Your task to perform on an android device: open wifi settings Image 0: 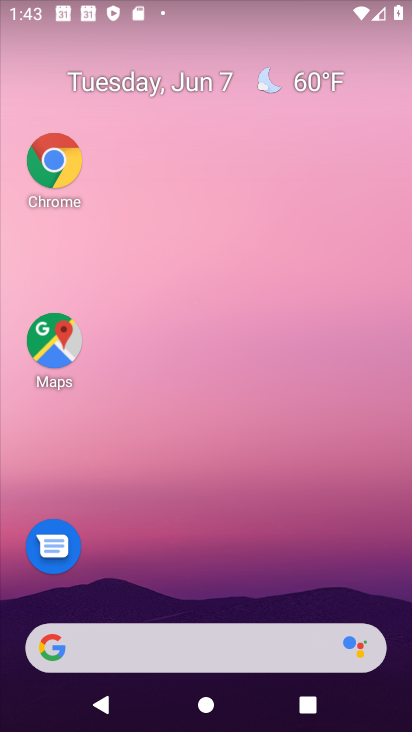
Step 0: drag from (154, 547) to (253, 131)
Your task to perform on an android device: open wifi settings Image 1: 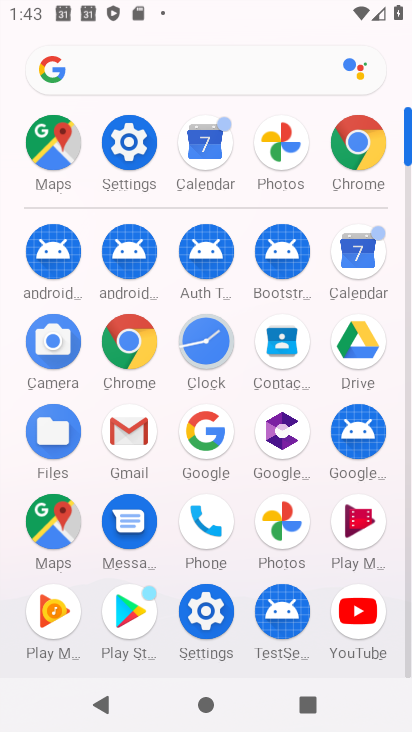
Step 1: click (126, 160)
Your task to perform on an android device: open wifi settings Image 2: 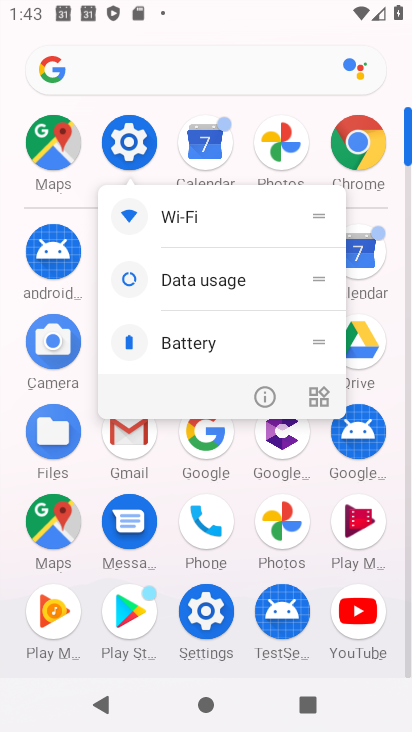
Step 2: click (208, 202)
Your task to perform on an android device: open wifi settings Image 3: 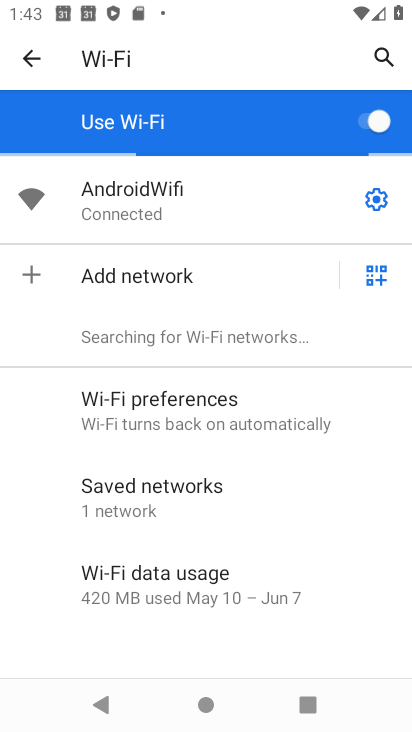
Step 3: click (371, 211)
Your task to perform on an android device: open wifi settings Image 4: 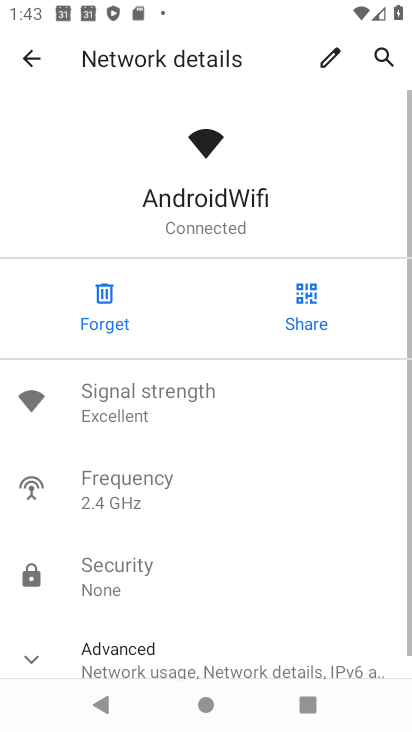
Step 4: task complete